Your task to perform on an android device: toggle sleep mode Image 0: 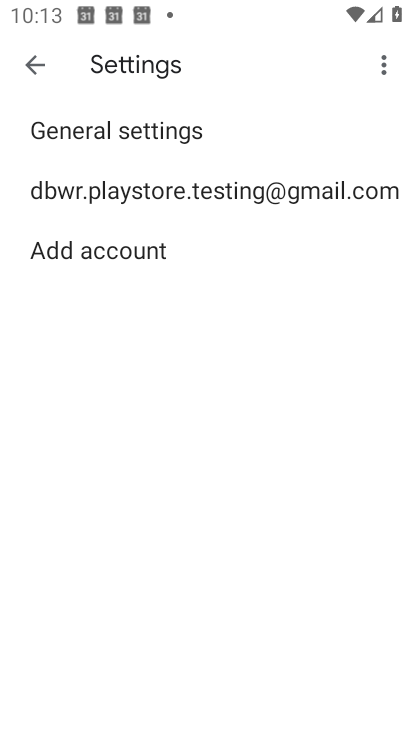
Step 0: press home button
Your task to perform on an android device: toggle sleep mode Image 1: 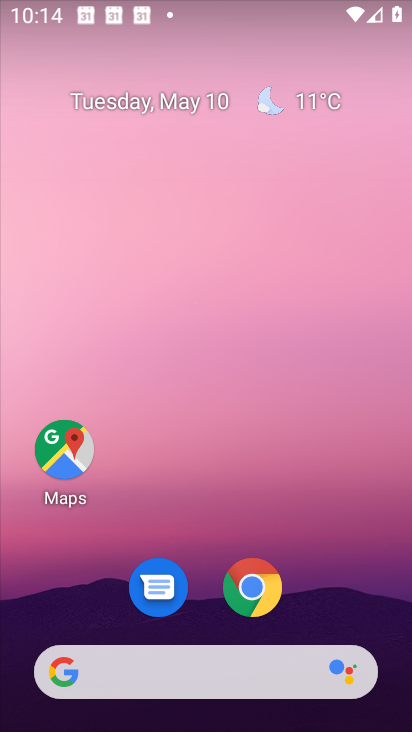
Step 1: drag from (366, 627) to (286, 177)
Your task to perform on an android device: toggle sleep mode Image 2: 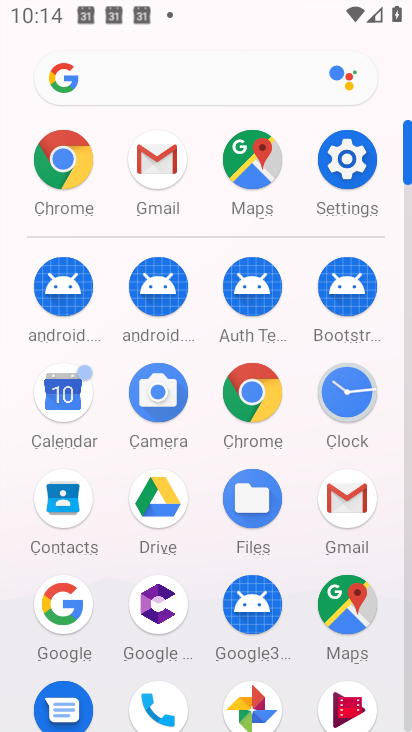
Step 2: click (331, 169)
Your task to perform on an android device: toggle sleep mode Image 3: 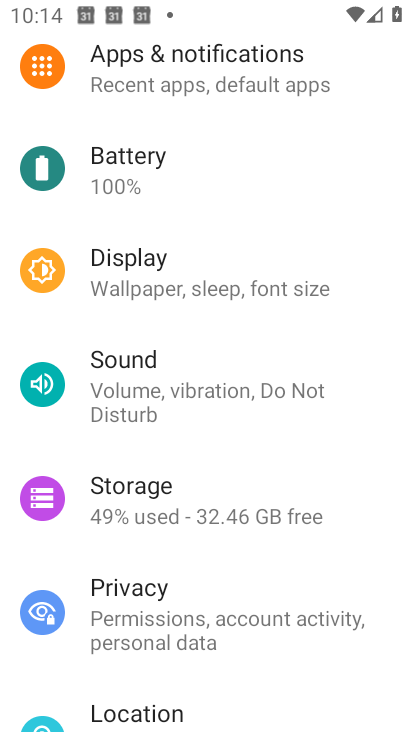
Step 3: drag from (291, 156) to (307, 529)
Your task to perform on an android device: toggle sleep mode Image 4: 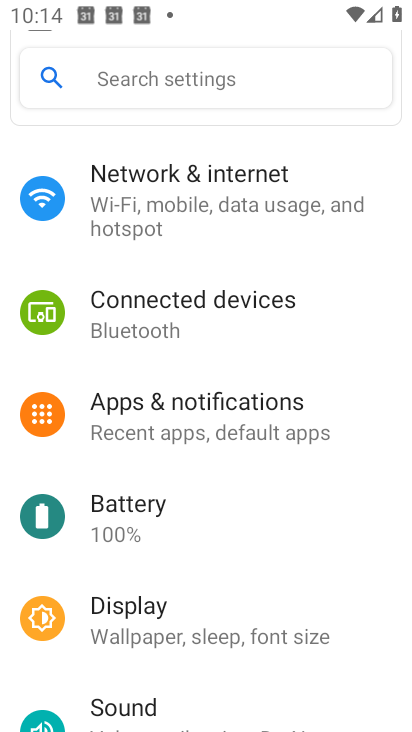
Step 4: click (214, 79)
Your task to perform on an android device: toggle sleep mode Image 5: 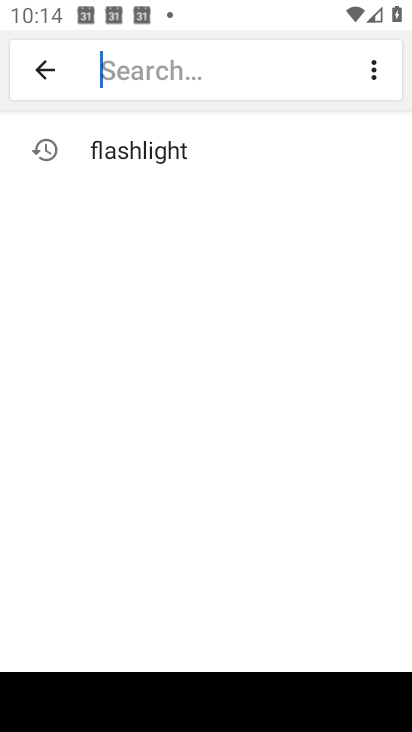
Step 5: type "sleep mode"
Your task to perform on an android device: toggle sleep mode Image 6: 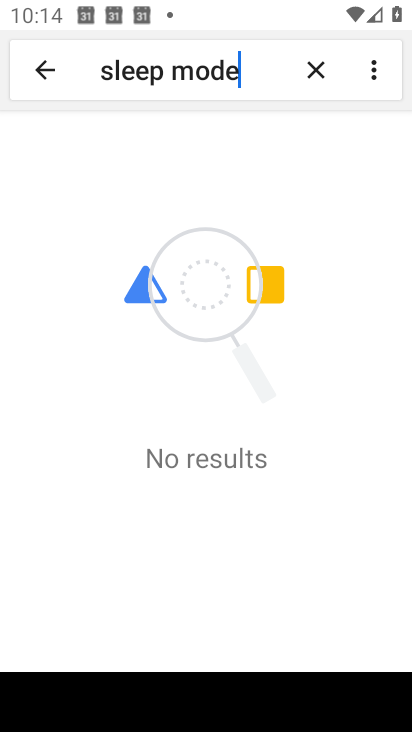
Step 6: task complete